Your task to perform on an android device: empty trash in the gmail app Image 0: 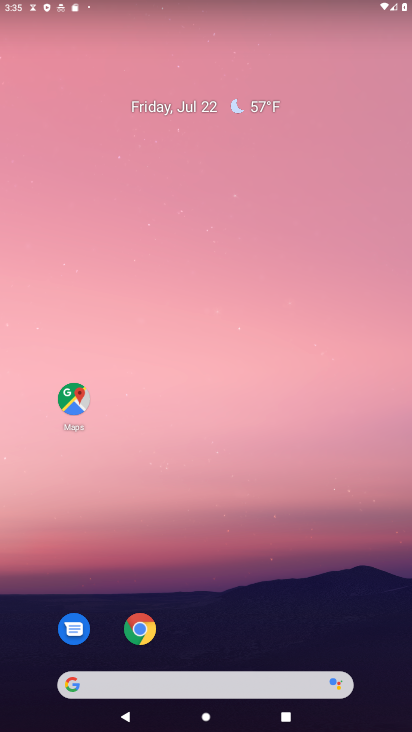
Step 0: drag from (302, 638) to (194, 257)
Your task to perform on an android device: empty trash in the gmail app Image 1: 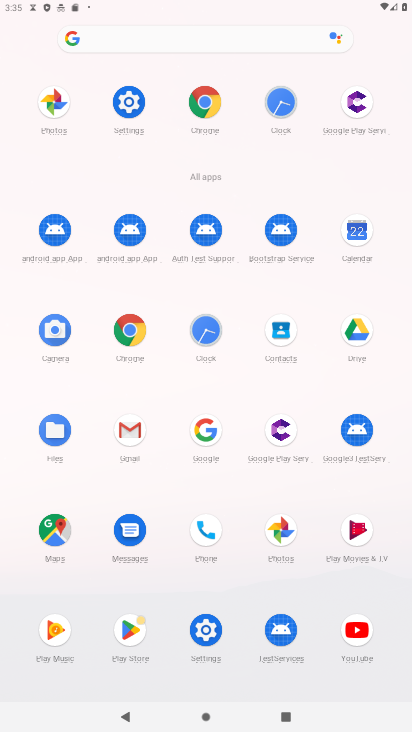
Step 1: click (125, 434)
Your task to perform on an android device: empty trash in the gmail app Image 2: 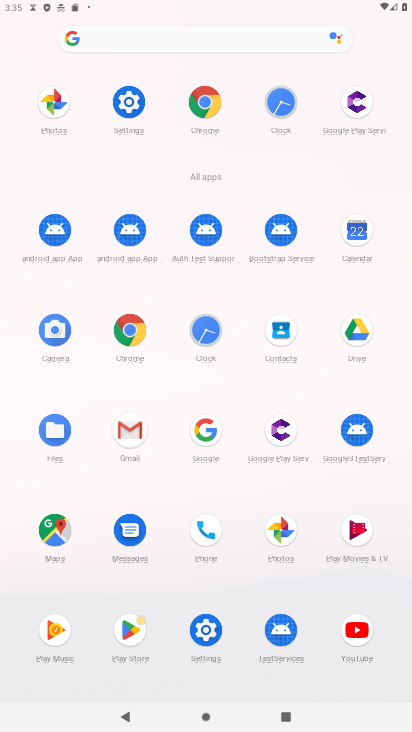
Step 2: click (125, 434)
Your task to perform on an android device: empty trash in the gmail app Image 3: 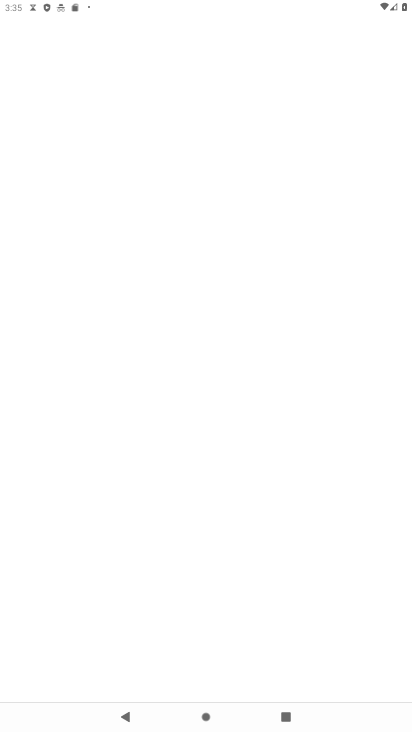
Step 3: click (129, 432)
Your task to perform on an android device: empty trash in the gmail app Image 4: 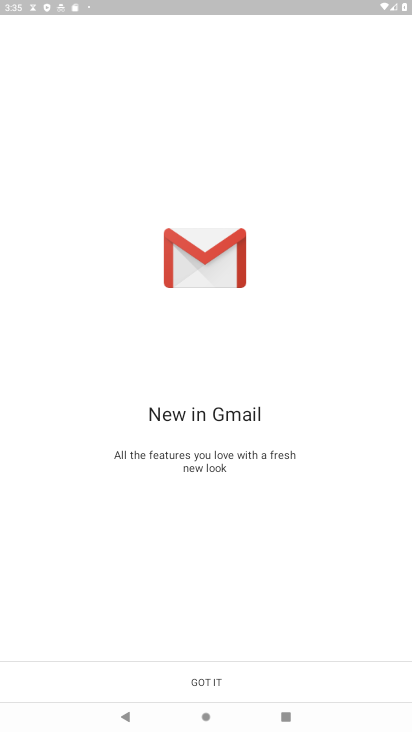
Step 4: click (211, 687)
Your task to perform on an android device: empty trash in the gmail app Image 5: 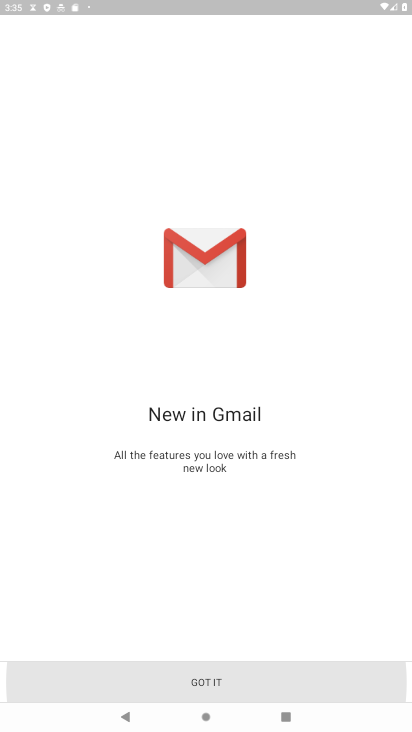
Step 5: click (211, 687)
Your task to perform on an android device: empty trash in the gmail app Image 6: 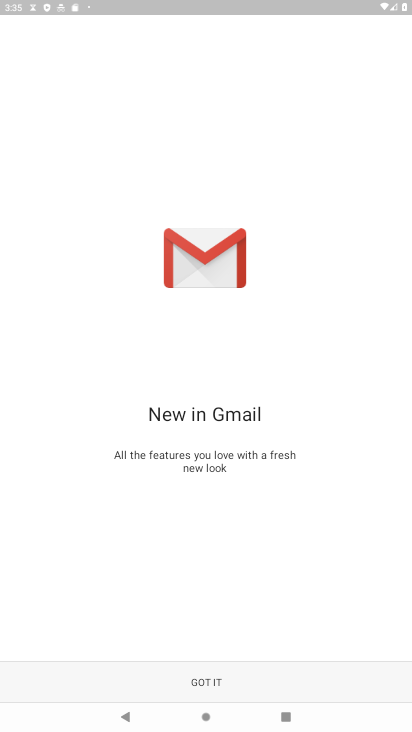
Step 6: click (210, 685)
Your task to perform on an android device: empty trash in the gmail app Image 7: 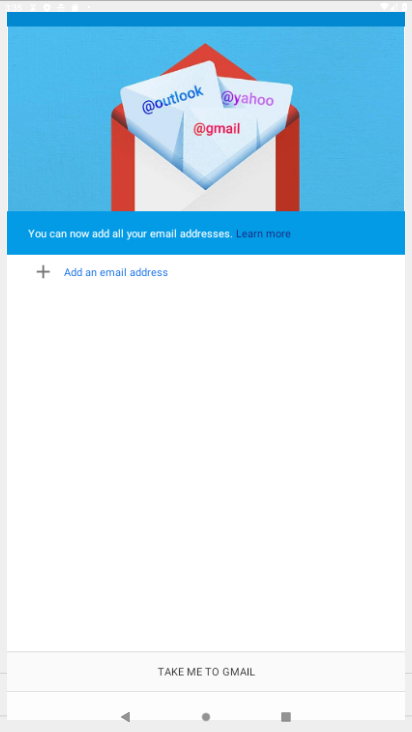
Step 7: click (210, 685)
Your task to perform on an android device: empty trash in the gmail app Image 8: 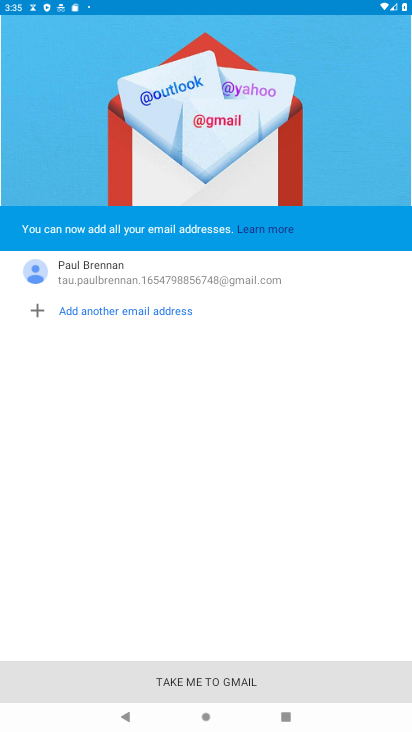
Step 8: click (220, 683)
Your task to perform on an android device: empty trash in the gmail app Image 9: 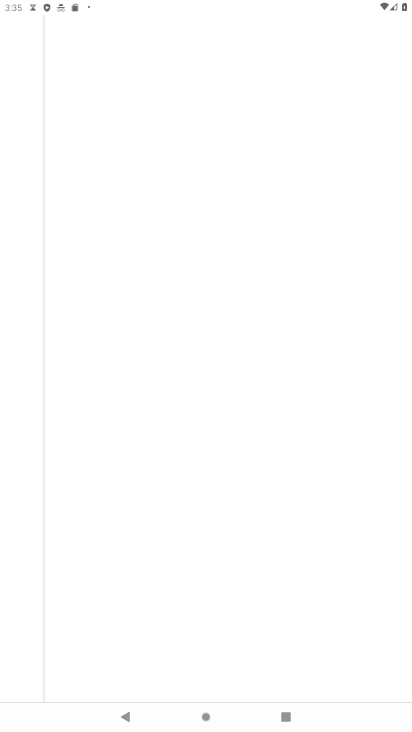
Step 9: click (199, 683)
Your task to perform on an android device: empty trash in the gmail app Image 10: 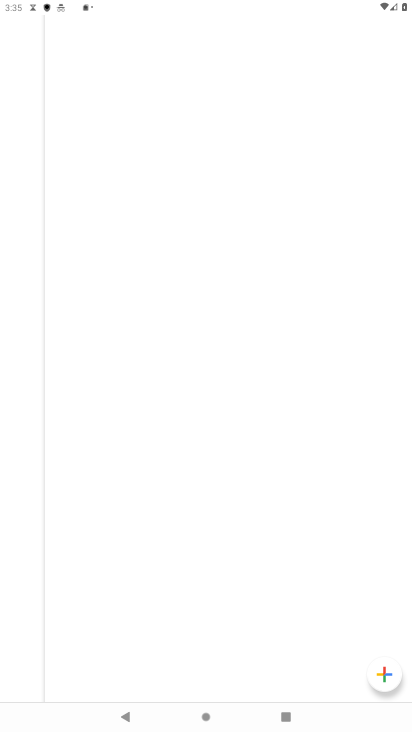
Step 10: click (199, 683)
Your task to perform on an android device: empty trash in the gmail app Image 11: 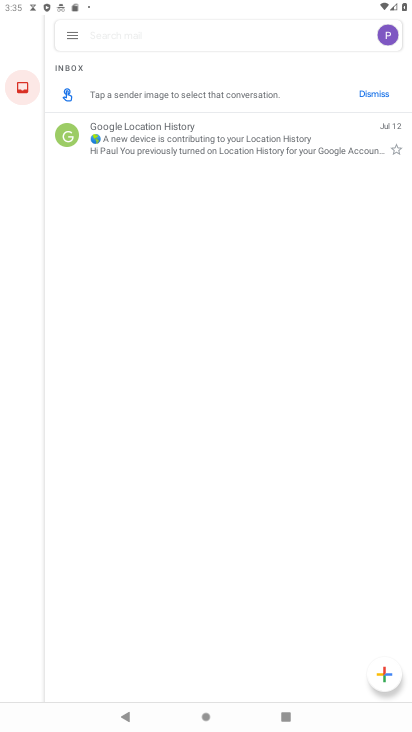
Step 11: click (67, 40)
Your task to perform on an android device: empty trash in the gmail app Image 12: 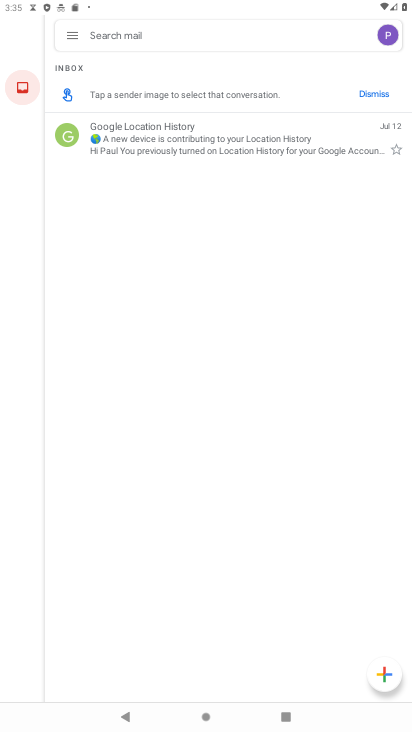
Step 12: click (67, 37)
Your task to perform on an android device: empty trash in the gmail app Image 13: 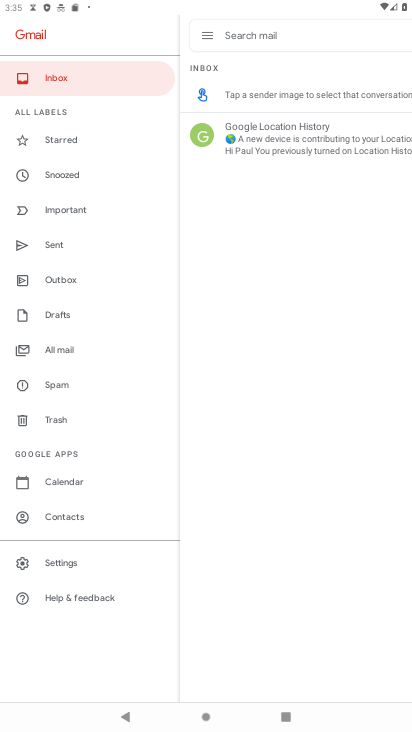
Step 13: click (66, 36)
Your task to perform on an android device: empty trash in the gmail app Image 14: 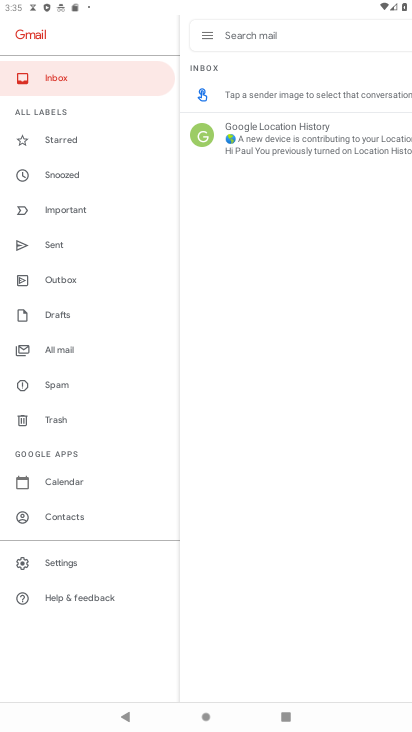
Step 14: click (66, 35)
Your task to perform on an android device: empty trash in the gmail app Image 15: 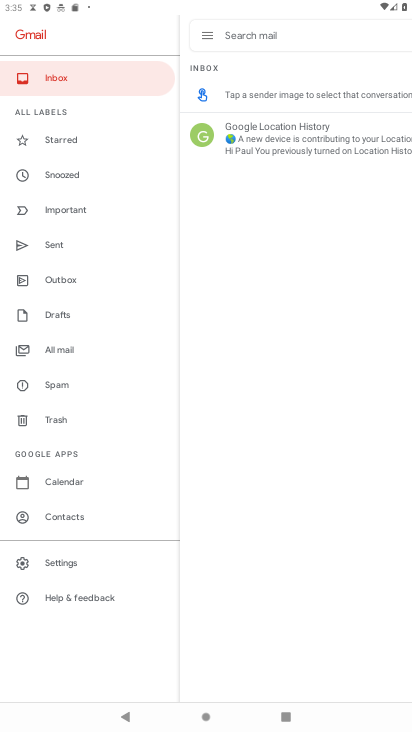
Step 15: click (65, 423)
Your task to perform on an android device: empty trash in the gmail app Image 16: 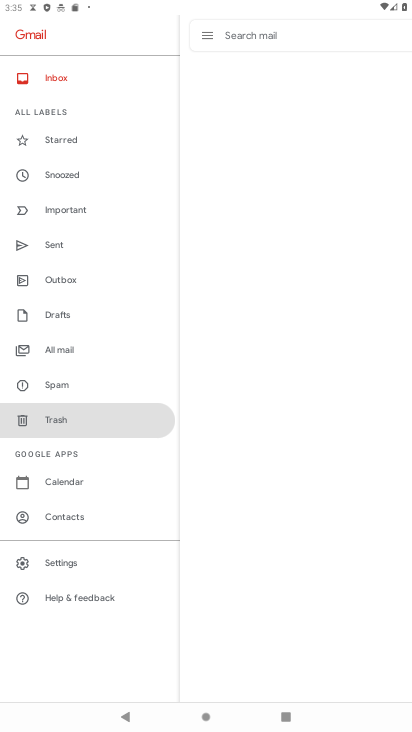
Step 16: click (65, 423)
Your task to perform on an android device: empty trash in the gmail app Image 17: 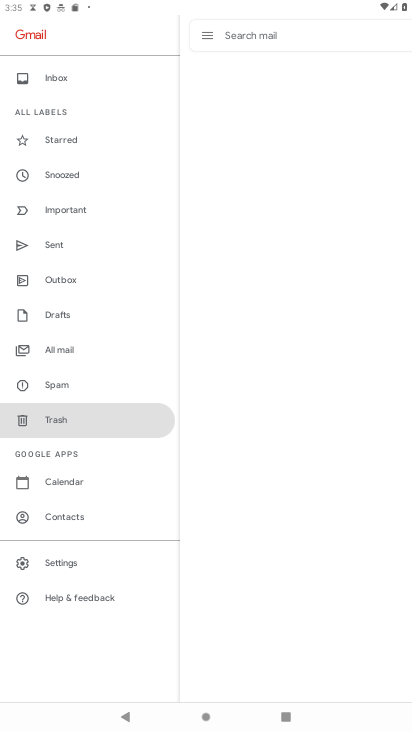
Step 17: click (65, 423)
Your task to perform on an android device: empty trash in the gmail app Image 18: 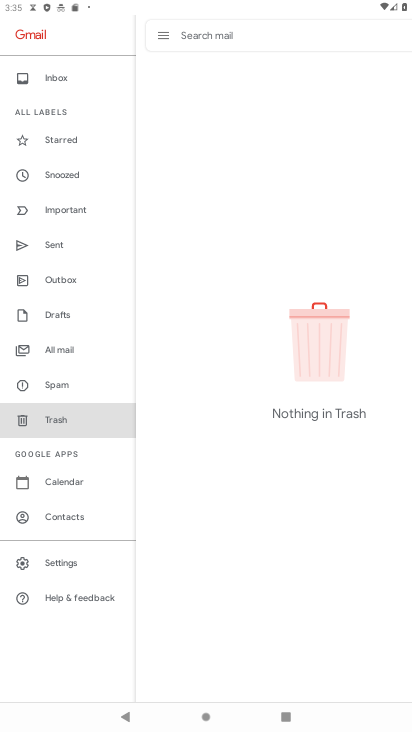
Step 18: click (65, 423)
Your task to perform on an android device: empty trash in the gmail app Image 19: 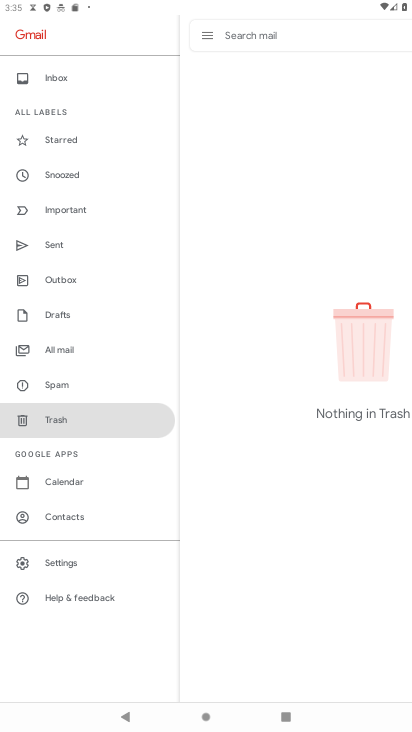
Step 19: click (45, 425)
Your task to perform on an android device: empty trash in the gmail app Image 20: 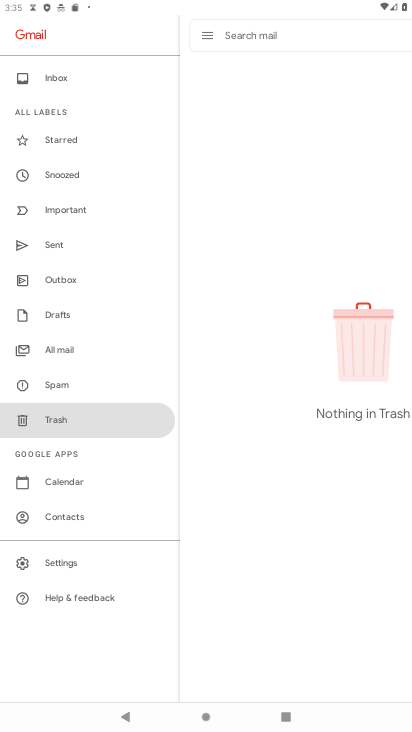
Step 20: click (49, 425)
Your task to perform on an android device: empty trash in the gmail app Image 21: 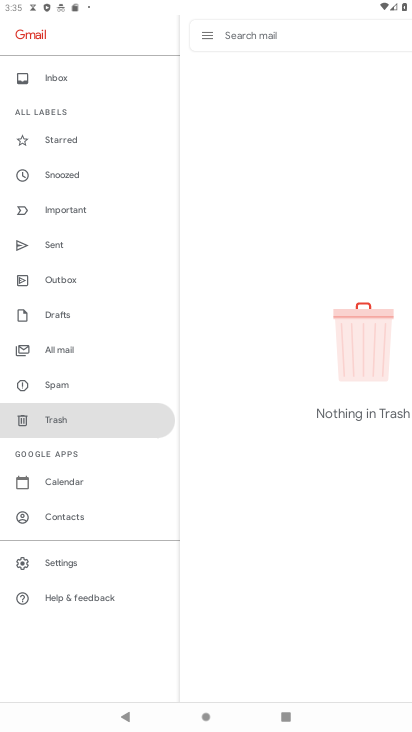
Step 21: click (54, 421)
Your task to perform on an android device: empty trash in the gmail app Image 22: 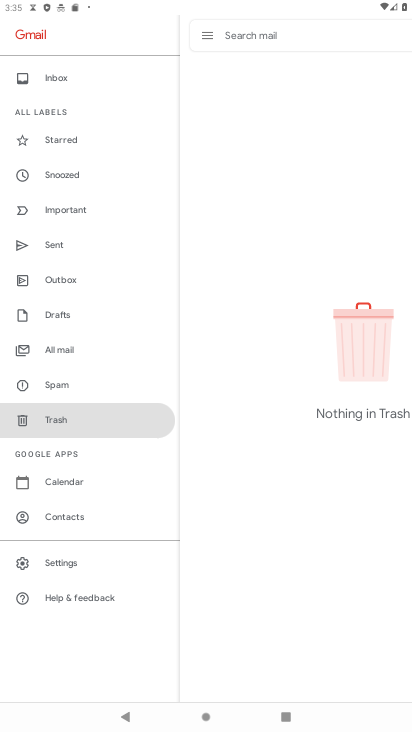
Step 22: click (53, 417)
Your task to perform on an android device: empty trash in the gmail app Image 23: 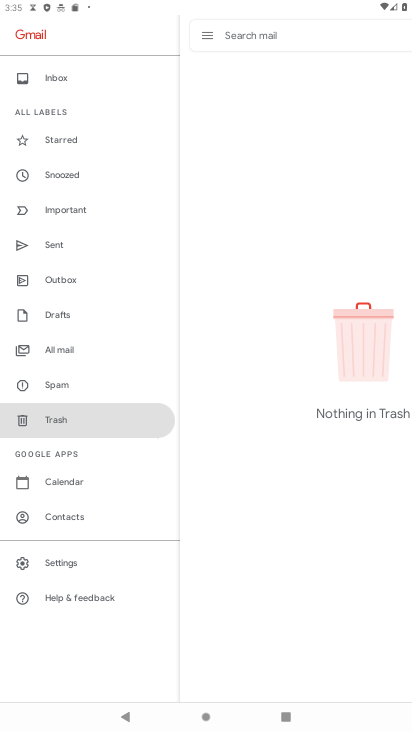
Step 23: task complete